Your task to perform on an android device: all mails in gmail Image 0: 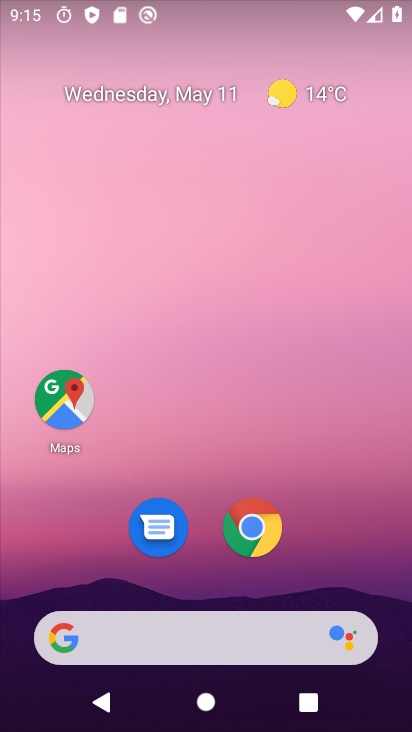
Step 0: drag from (215, 596) to (257, 125)
Your task to perform on an android device: all mails in gmail Image 1: 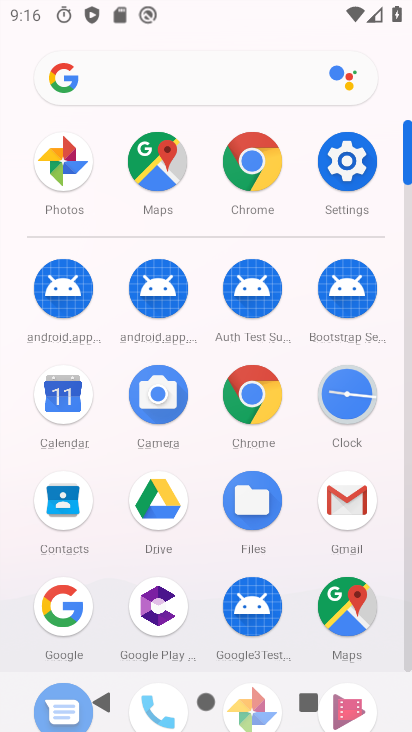
Step 1: drag from (235, 510) to (235, 278)
Your task to perform on an android device: all mails in gmail Image 2: 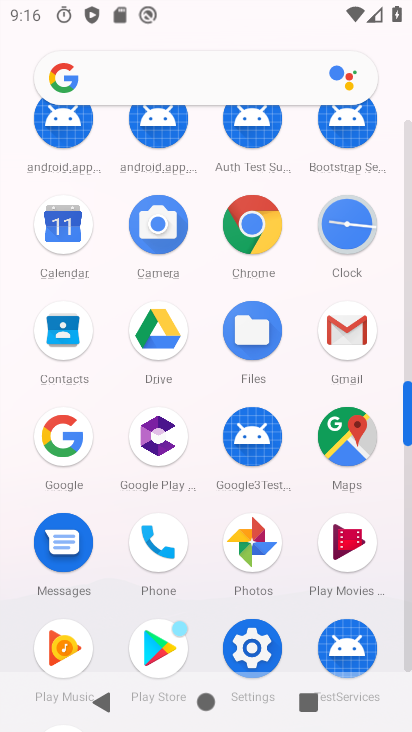
Step 2: click (356, 357)
Your task to perform on an android device: all mails in gmail Image 3: 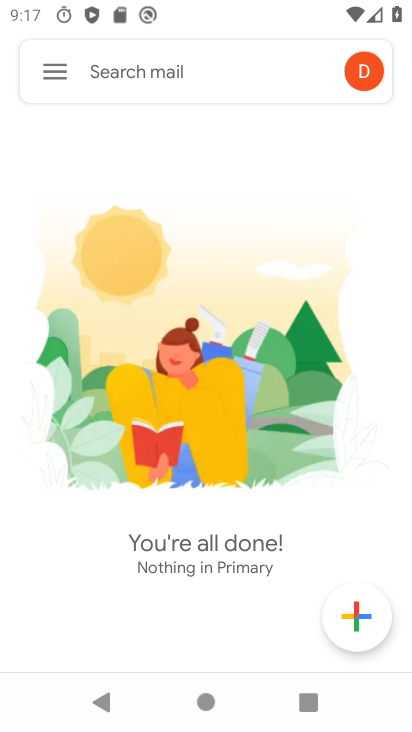
Step 3: click (56, 69)
Your task to perform on an android device: all mails in gmail Image 4: 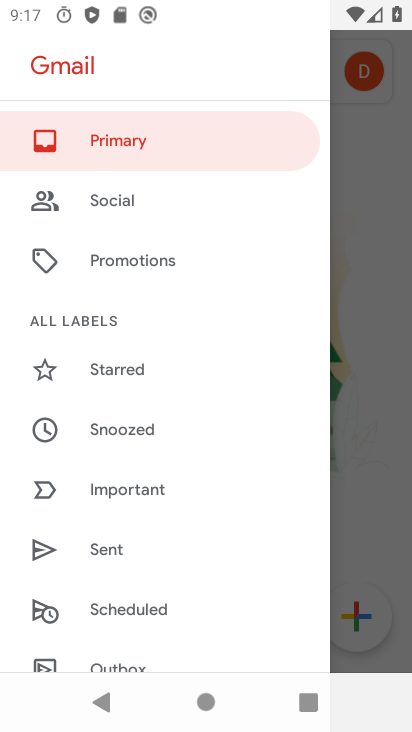
Step 4: drag from (94, 539) to (102, 125)
Your task to perform on an android device: all mails in gmail Image 5: 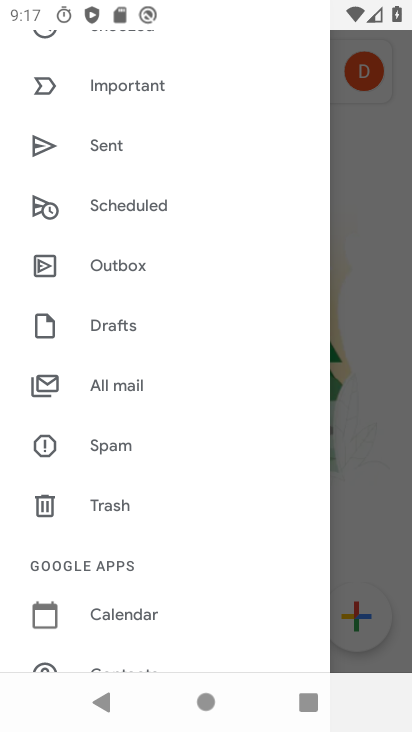
Step 5: click (122, 395)
Your task to perform on an android device: all mails in gmail Image 6: 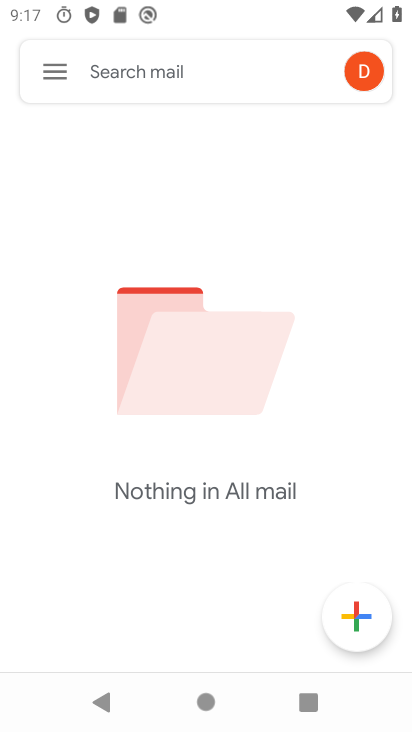
Step 6: task complete